Your task to perform on an android device: Go to Android settings Image 0: 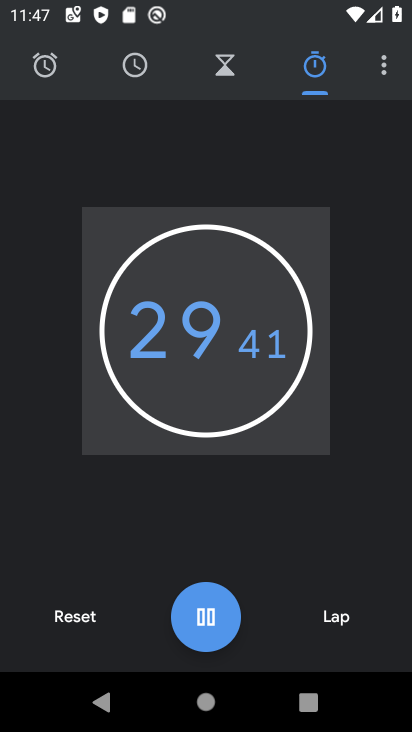
Step 0: press home button
Your task to perform on an android device: Go to Android settings Image 1: 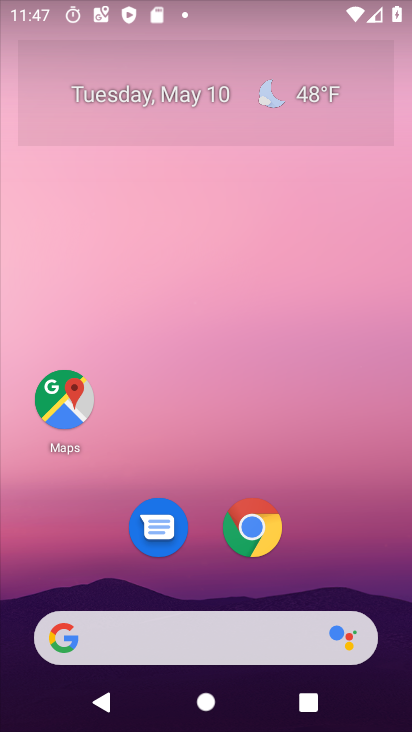
Step 1: drag from (221, 724) to (191, 132)
Your task to perform on an android device: Go to Android settings Image 2: 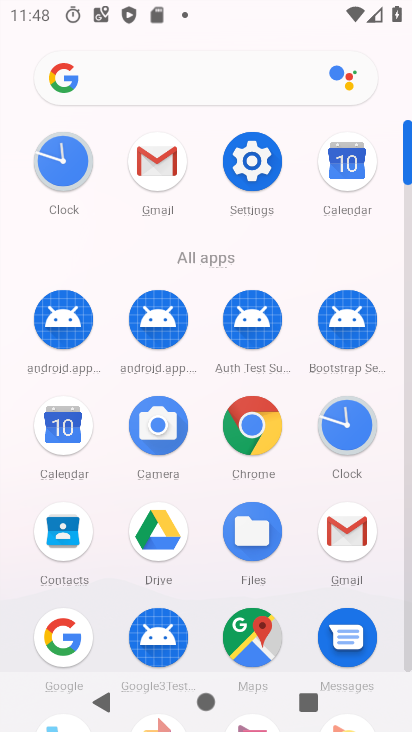
Step 2: click (251, 170)
Your task to perform on an android device: Go to Android settings Image 3: 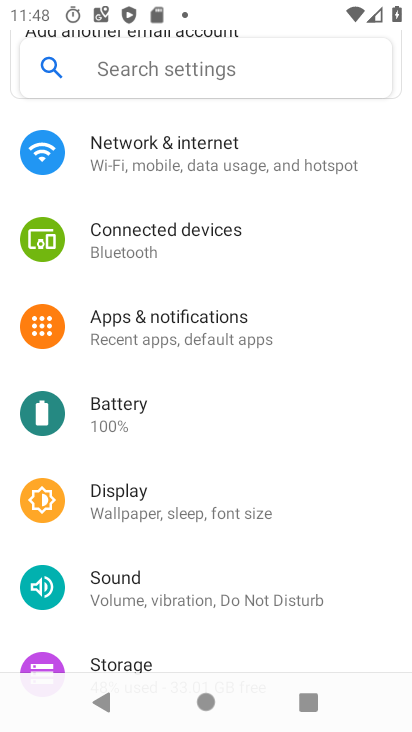
Step 3: task complete